Your task to perform on an android device: uninstall "Google Pay: Save, Pay, Manage" Image 0: 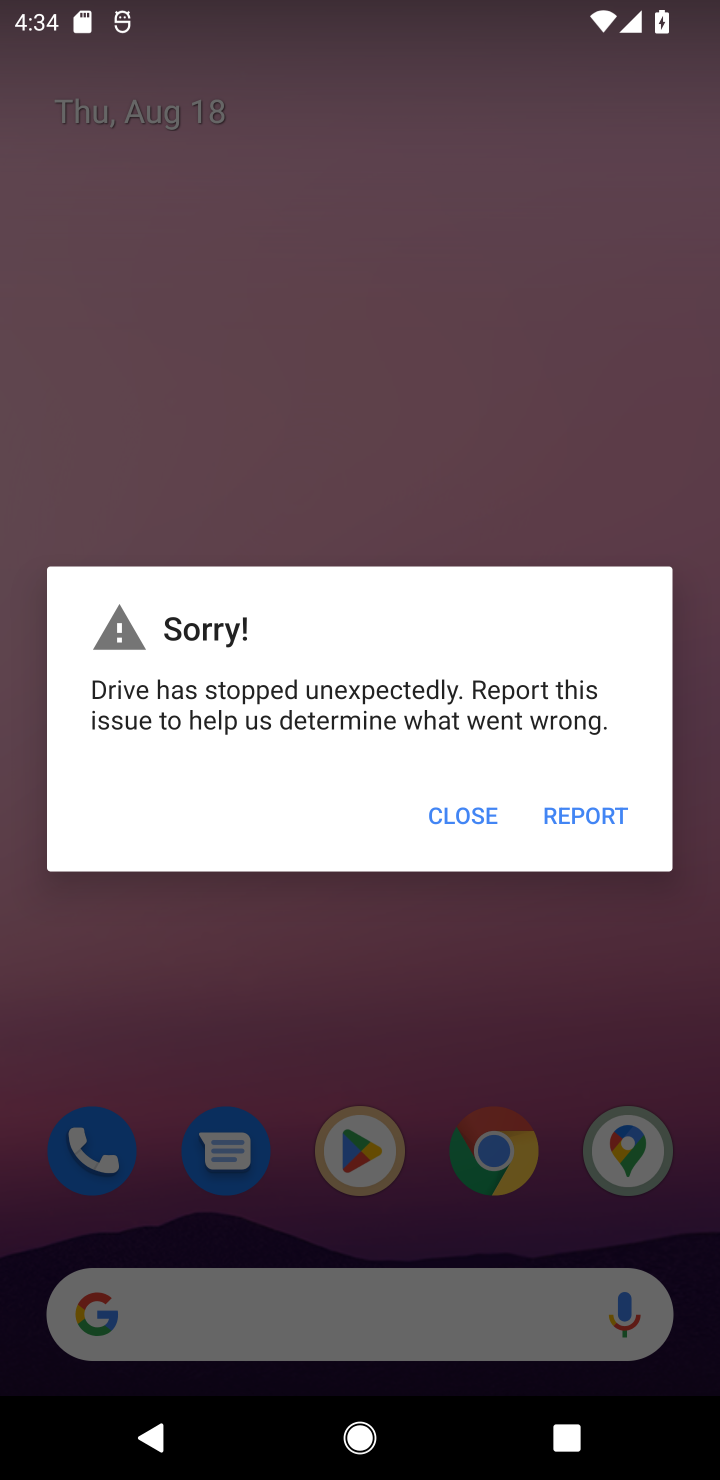
Step 0: click (447, 799)
Your task to perform on an android device: uninstall "Google Pay: Save, Pay, Manage" Image 1: 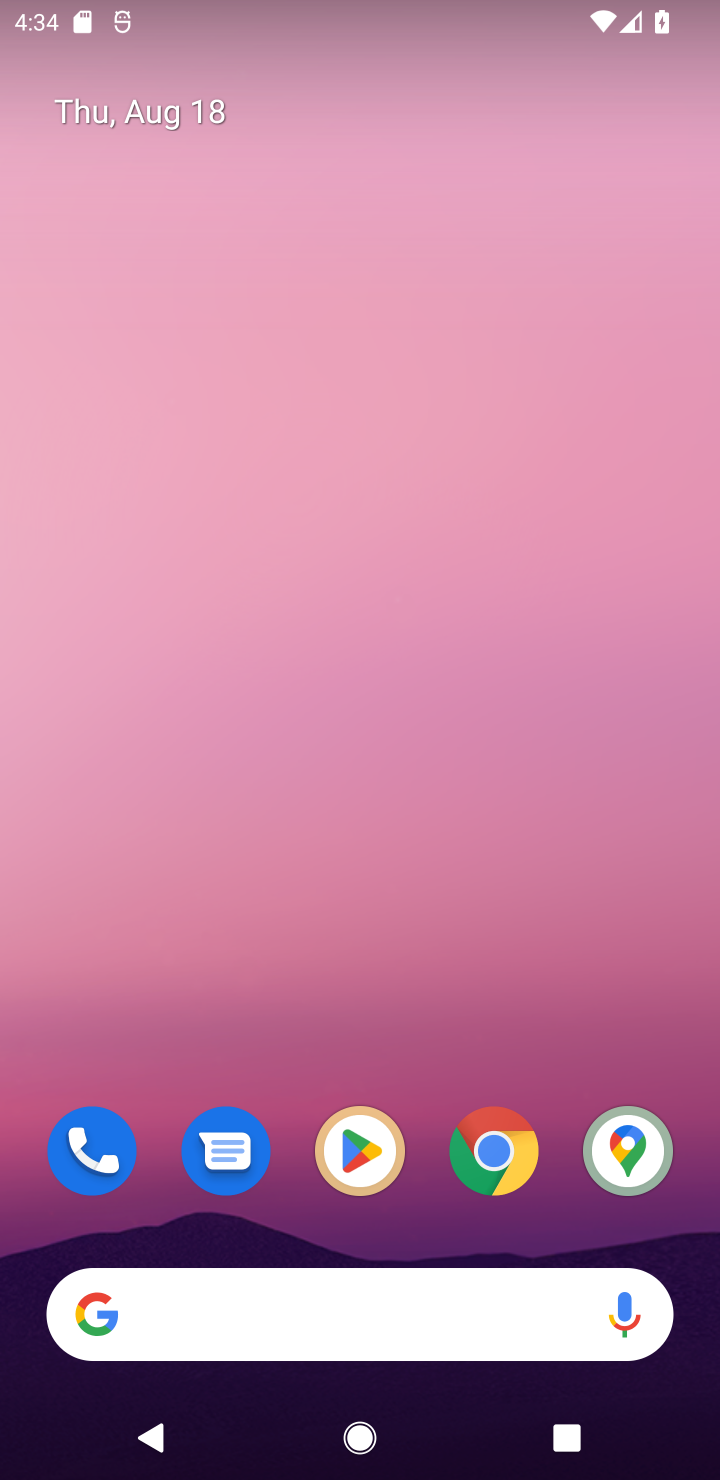
Step 1: click (339, 1190)
Your task to perform on an android device: uninstall "Google Pay: Save, Pay, Manage" Image 2: 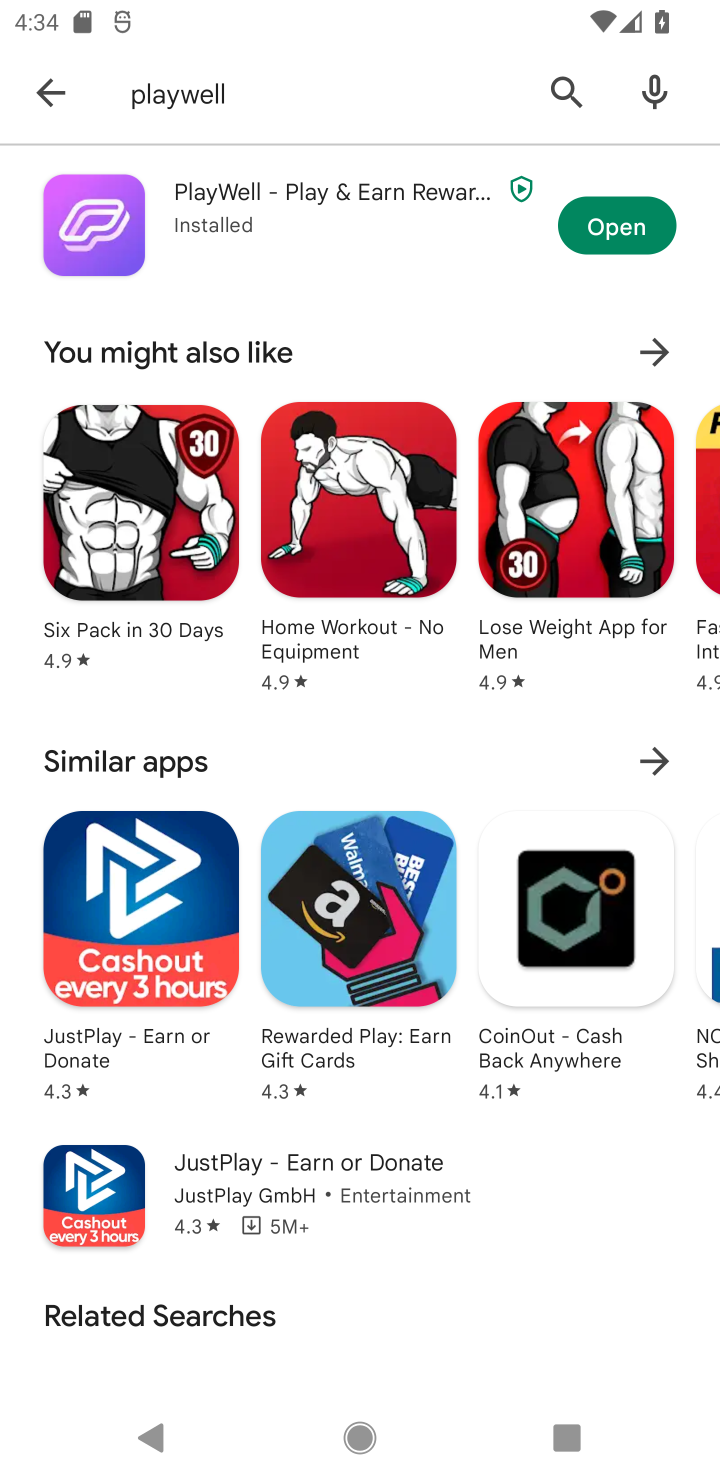
Step 2: click (578, 101)
Your task to perform on an android device: uninstall "Google Pay: Save, Pay, Manage" Image 3: 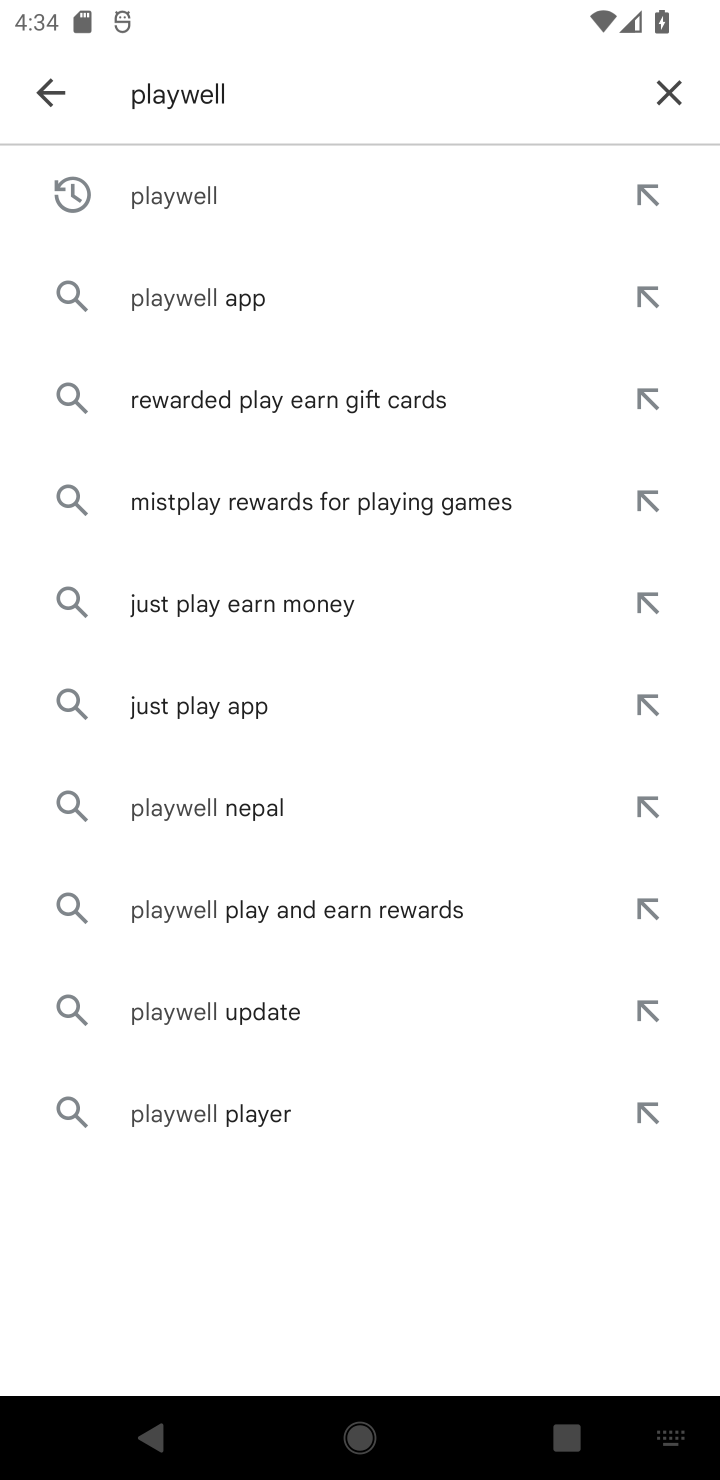
Step 3: click (672, 93)
Your task to perform on an android device: uninstall "Google Pay: Save, Pay, Manage" Image 4: 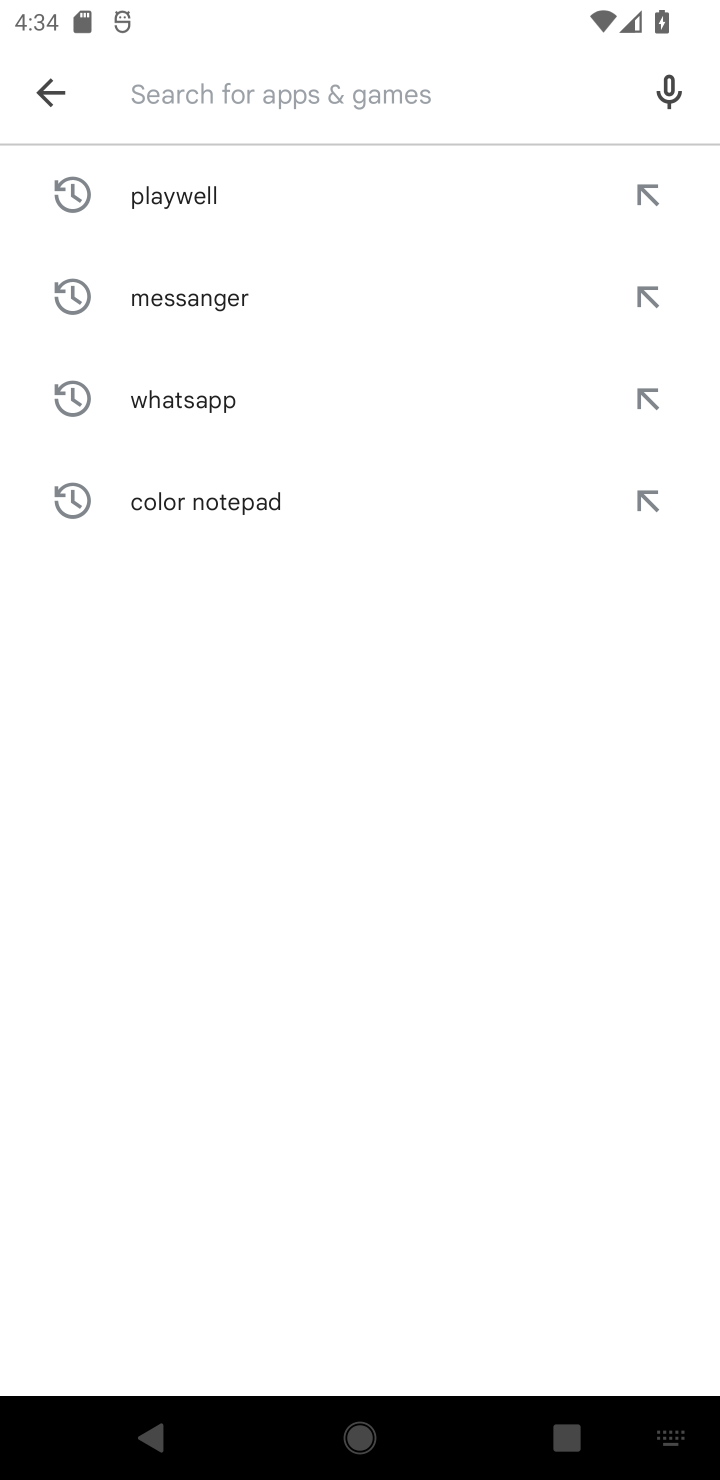
Step 4: type "google play "
Your task to perform on an android device: uninstall "Google Pay: Save, Pay, Manage" Image 5: 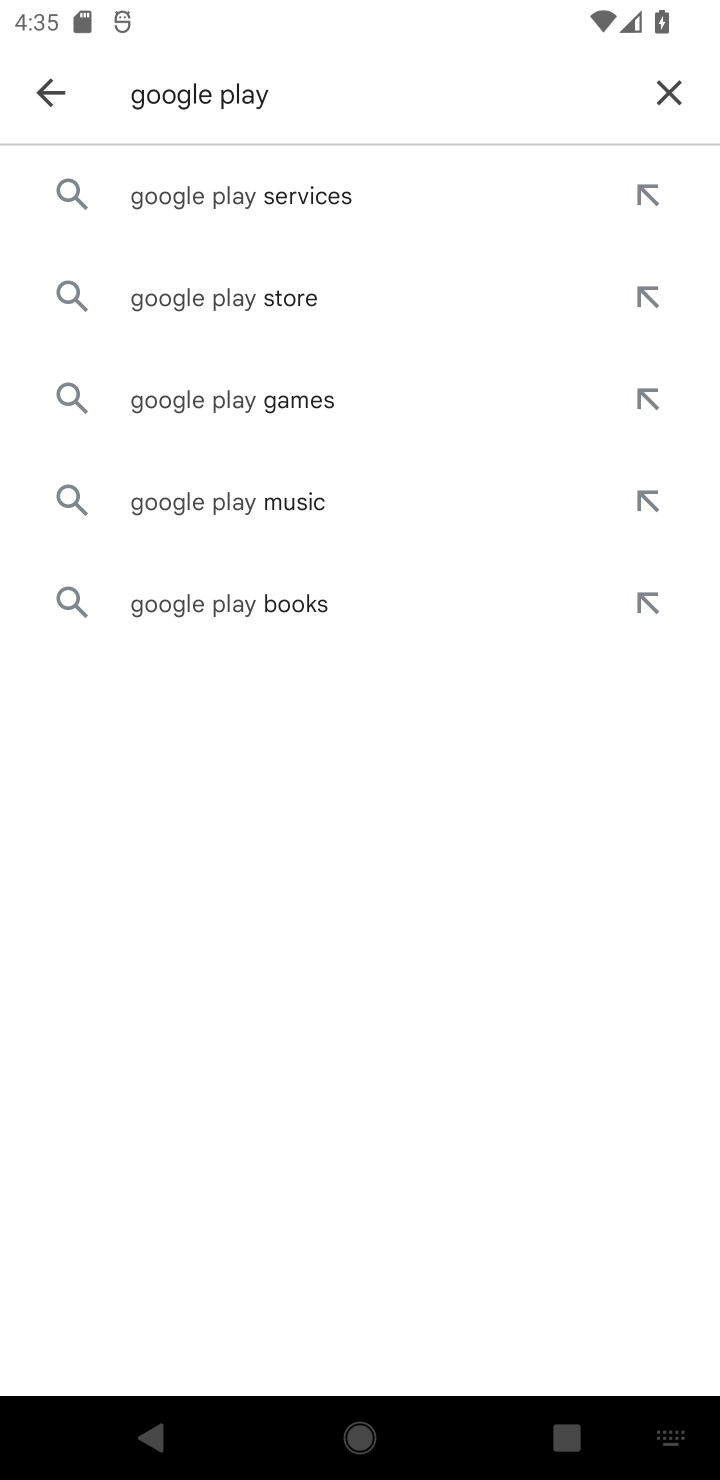
Step 5: click (384, 228)
Your task to perform on an android device: uninstall "Google Pay: Save, Pay, Manage" Image 6: 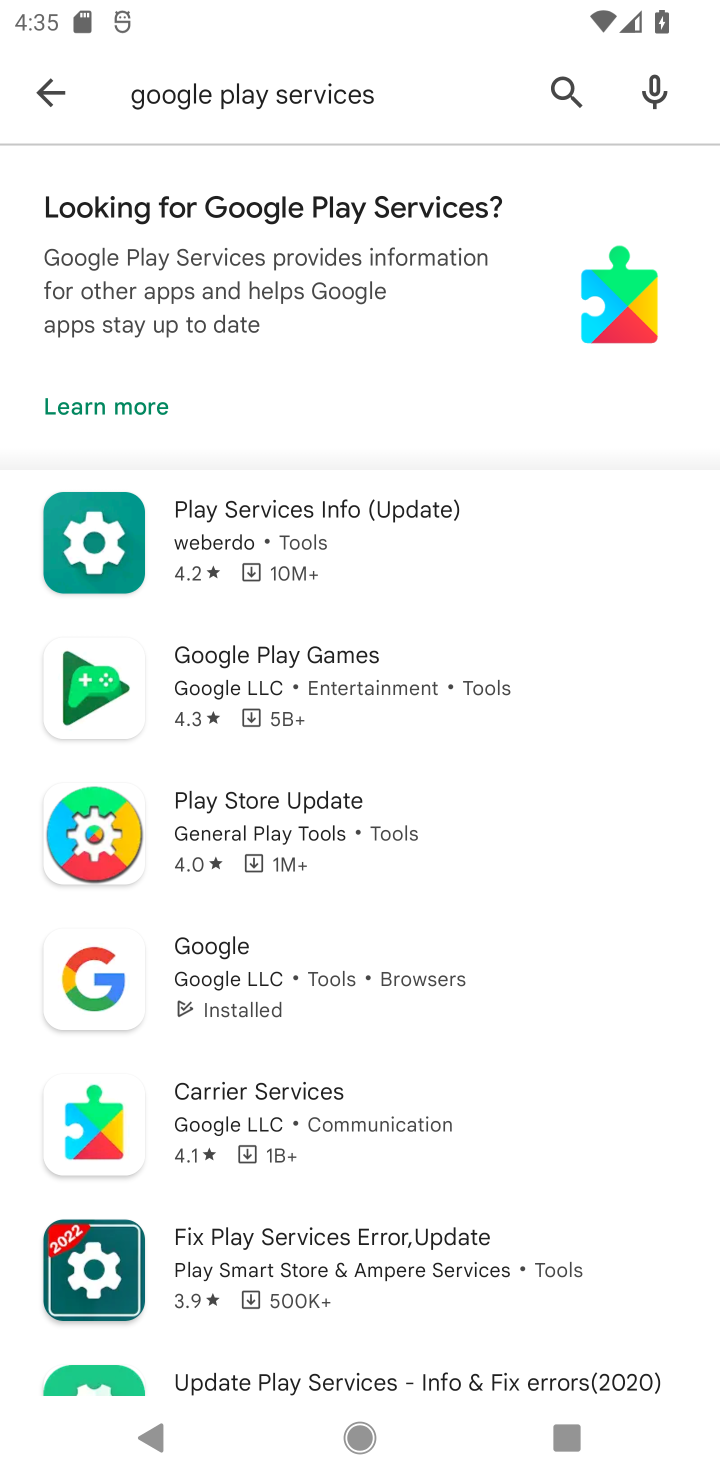
Step 6: click (433, 489)
Your task to perform on an android device: uninstall "Google Pay: Save, Pay, Manage" Image 7: 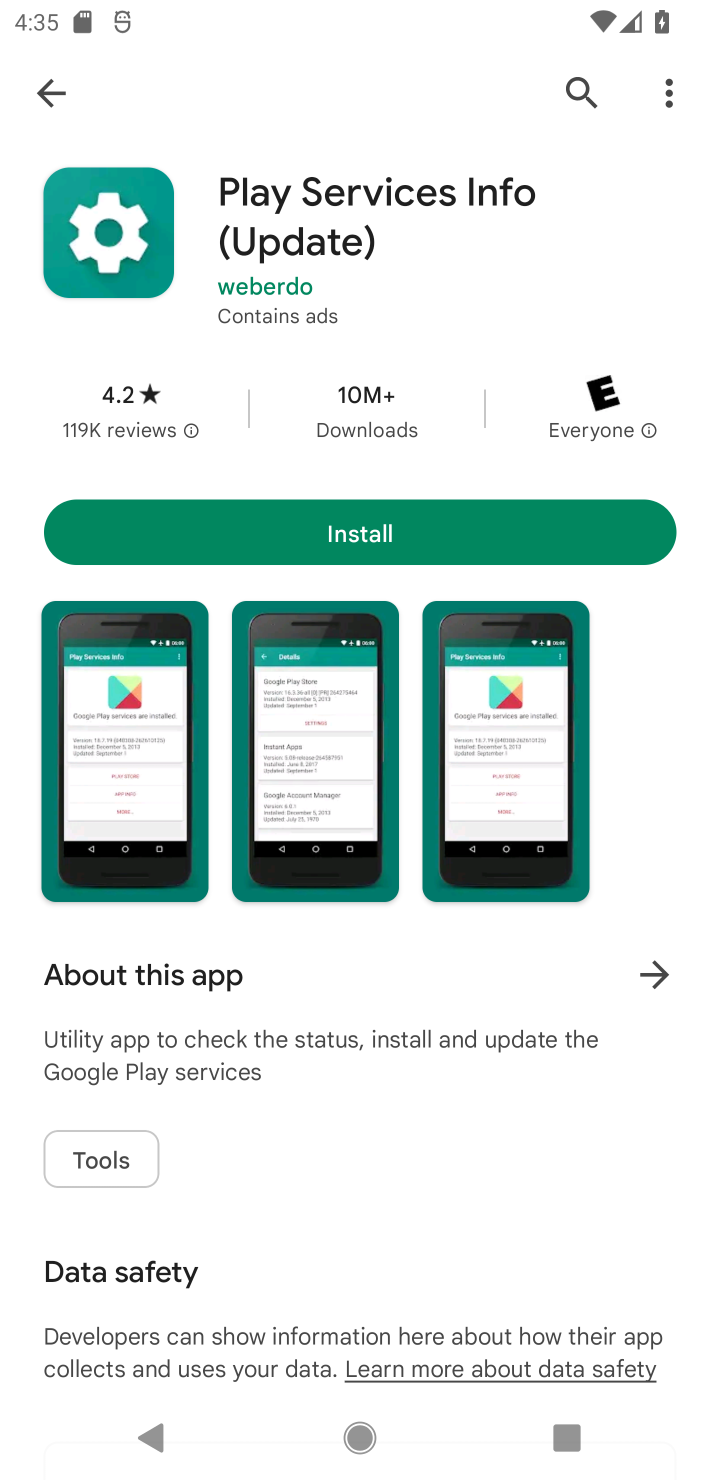
Step 7: click (330, 509)
Your task to perform on an android device: uninstall "Google Pay: Save, Pay, Manage" Image 8: 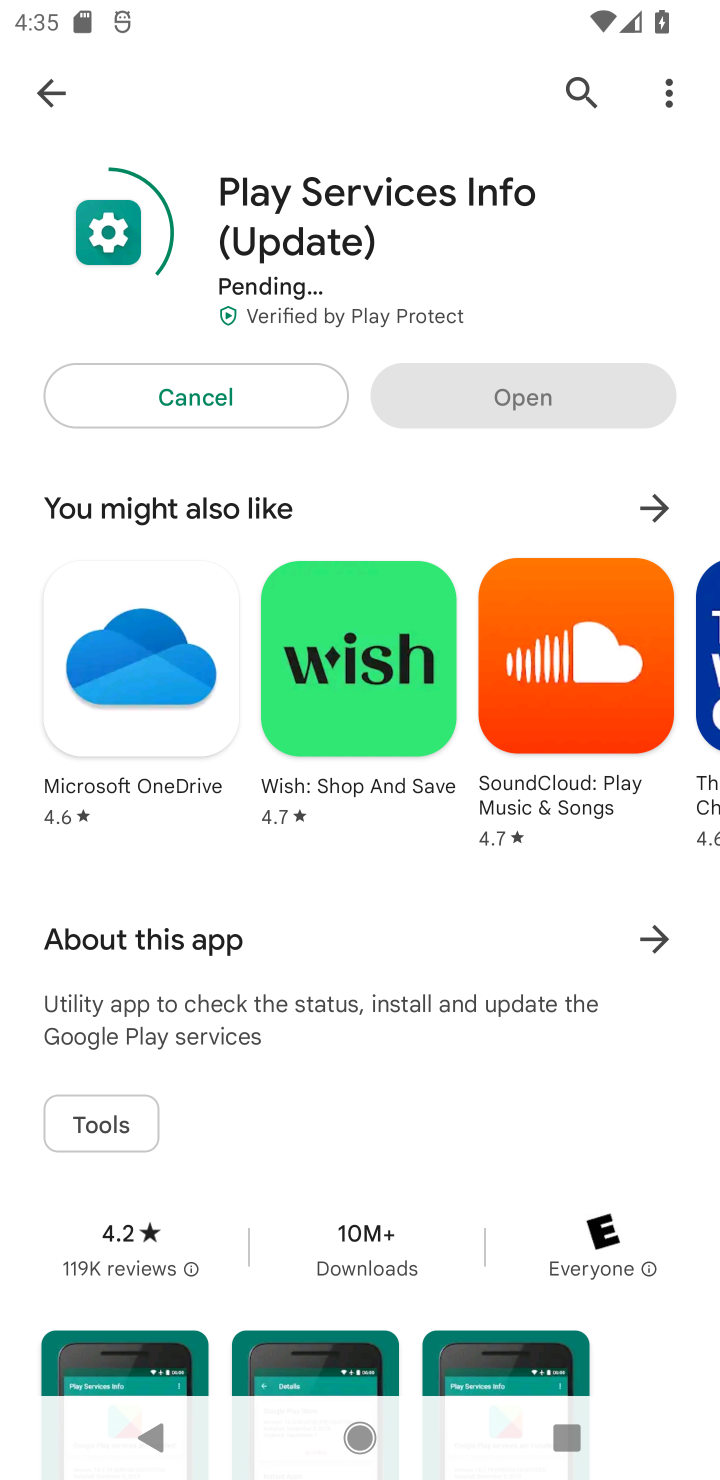
Step 8: task complete